Your task to perform on an android device: change keyboard looks Image 0: 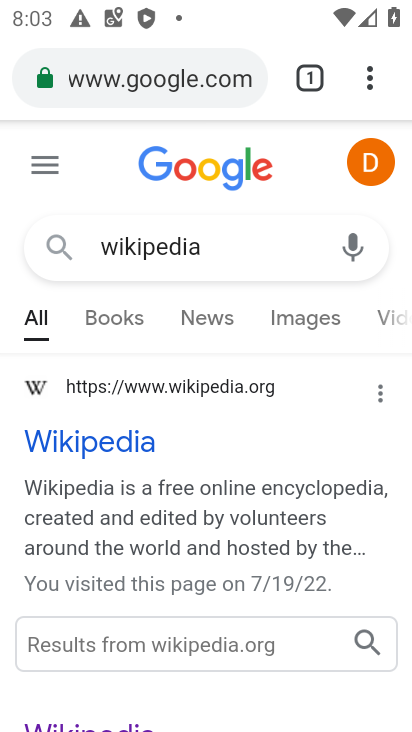
Step 0: press home button
Your task to perform on an android device: change keyboard looks Image 1: 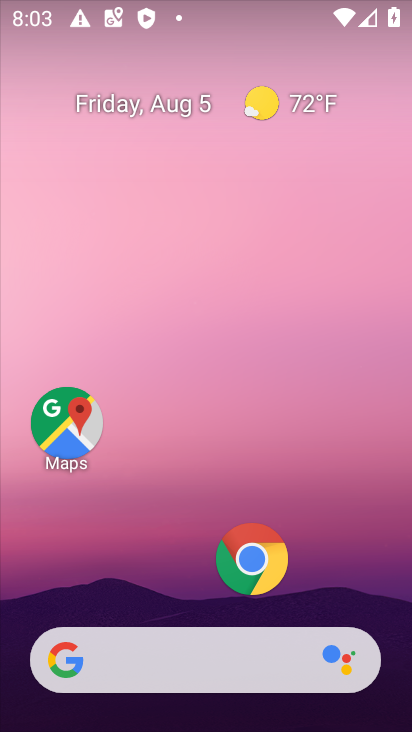
Step 1: drag from (158, 586) to (188, 81)
Your task to perform on an android device: change keyboard looks Image 2: 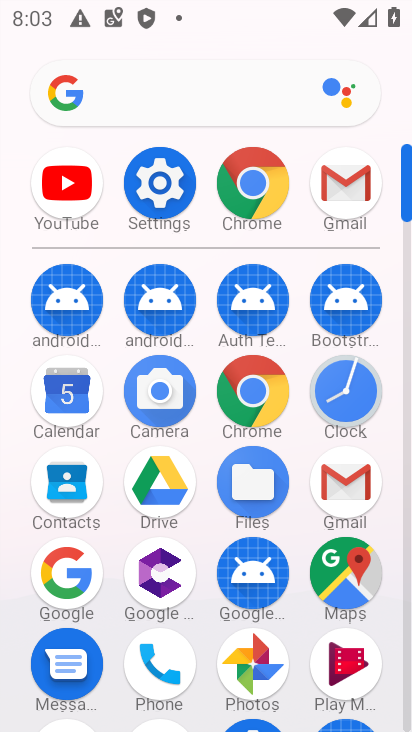
Step 2: click (164, 195)
Your task to perform on an android device: change keyboard looks Image 3: 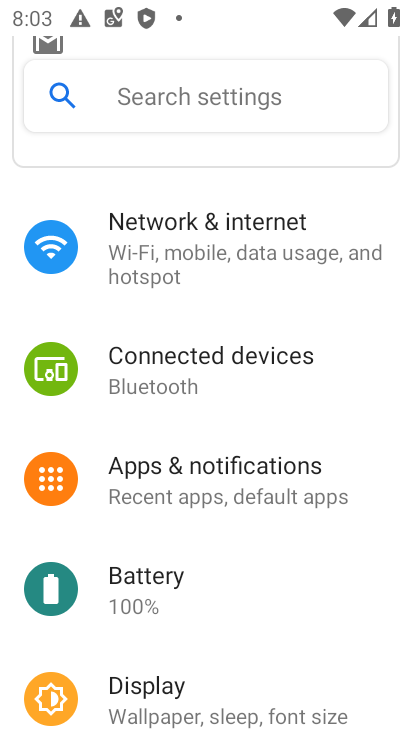
Step 3: drag from (232, 592) to (267, 274)
Your task to perform on an android device: change keyboard looks Image 4: 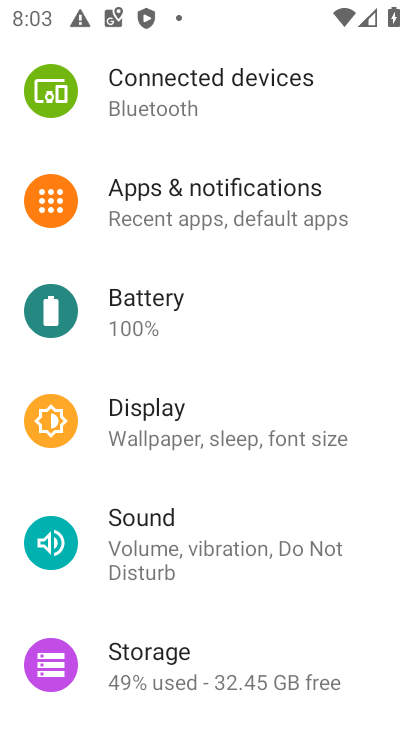
Step 4: drag from (194, 582) to (227, 347)
Your task to perform on an android device: change keyboard looks Image 5: 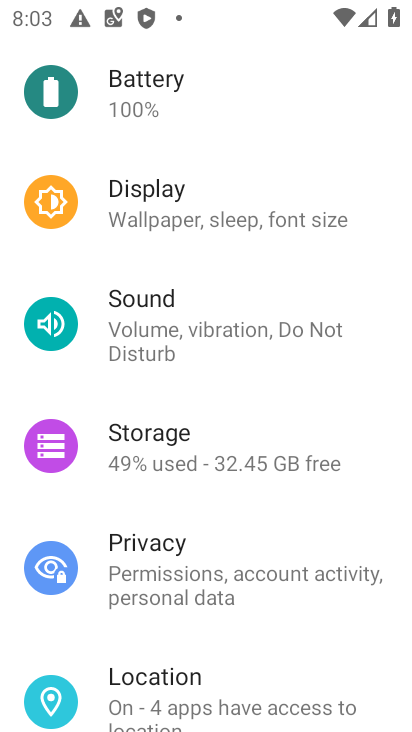
Step 5: drag from (216, 594) to (236, 333)
Your task to perform on an android device: change keyboard looks Image 6: 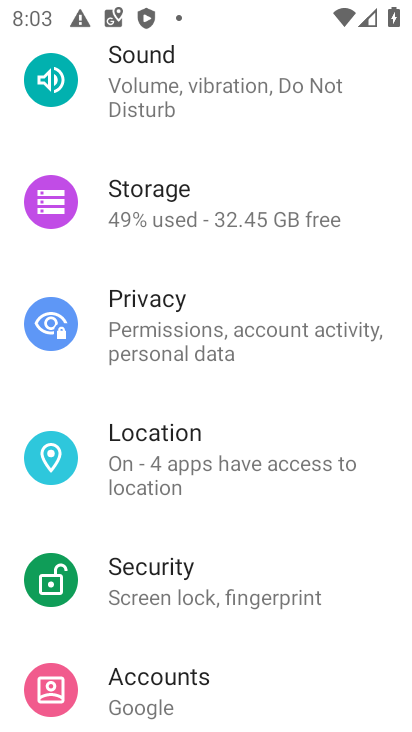
Step 6: drag from (179, 610) to (242, 171)
Your task to perform on an android device: change keyboard looks Image 7: 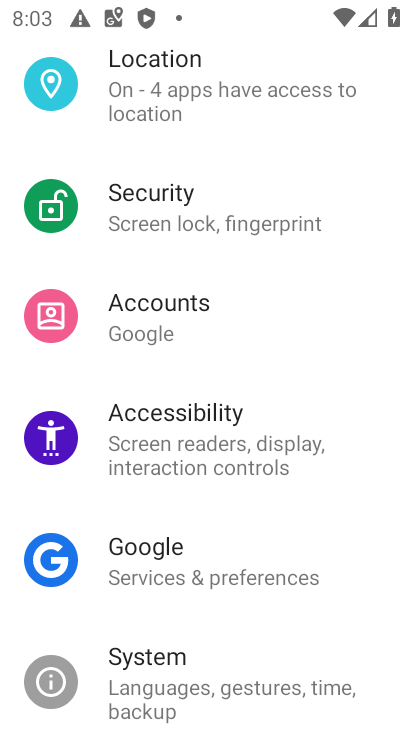
Step 7: click (167, 668)
Your task to perform on an android device: change keyboard looks Image 8: 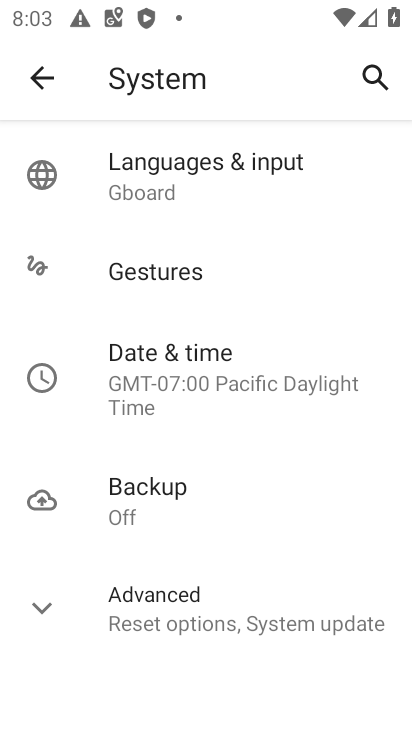
Step 8: click (140, 166)
Your task to perform on an android device: change keyboard looks Image 9: 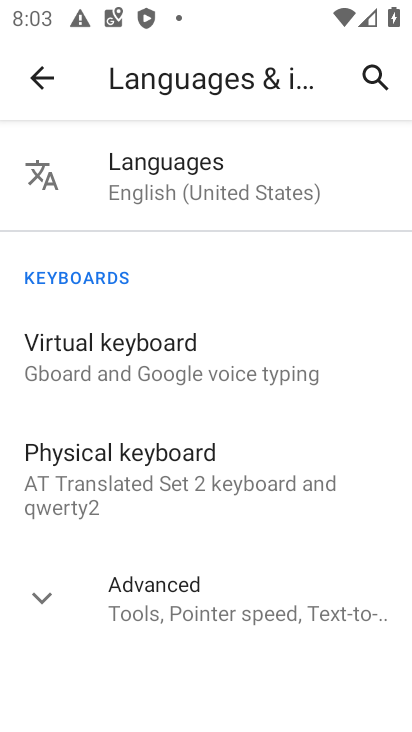
Step 9: click (116, 347)
Your task to perform on an android device: change keyboard looks Image 10: 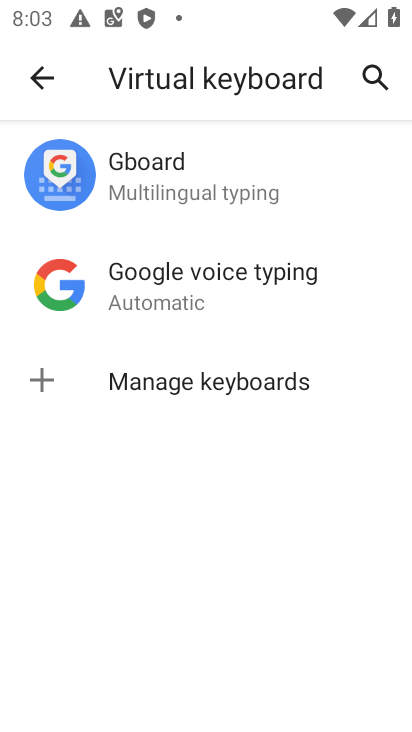
Step 10: click (138, 186)
Your task to perform on an android device: change keyboard looks Image 11: 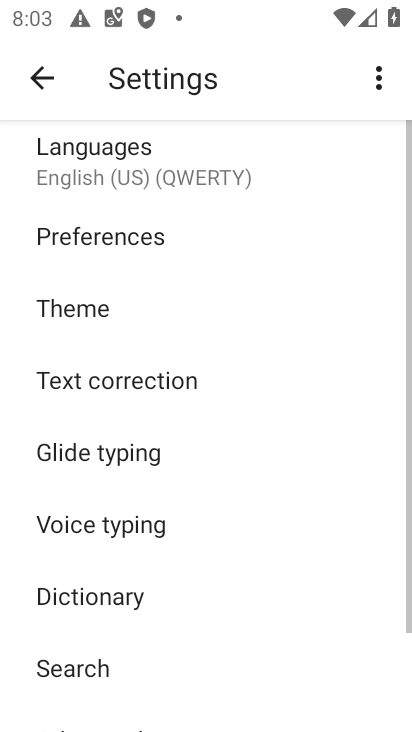
Step 11: click (94, 311)
Your task to perform on an android device: change keyboard looks Image 12: 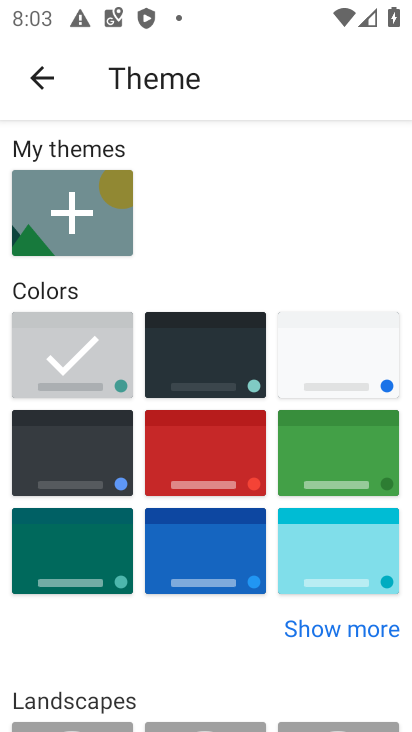
Step 12: click (200, 359)
Your task to perform on an android device: change keyboard looks Image 13: 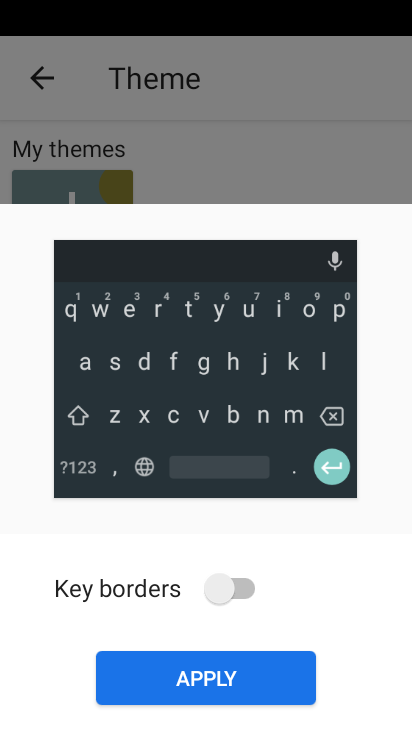
Step 13: click (207, 684)
Your task to perform on an android device: change keyboard looks Image 14: 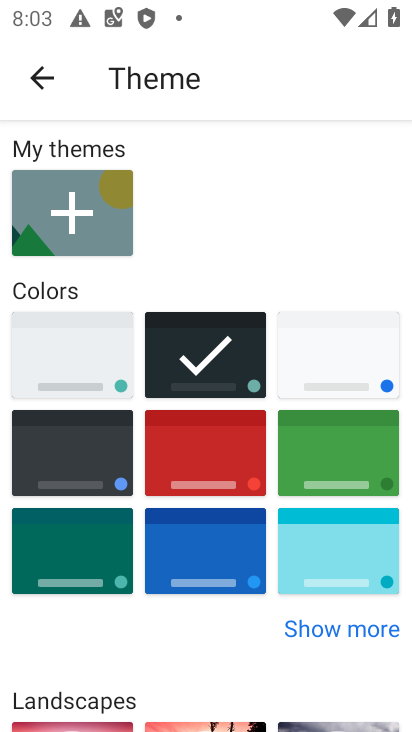
Step 14: task complete